Your task to perform on an android device: Search for Mexican restaurants on Maps Image 0: 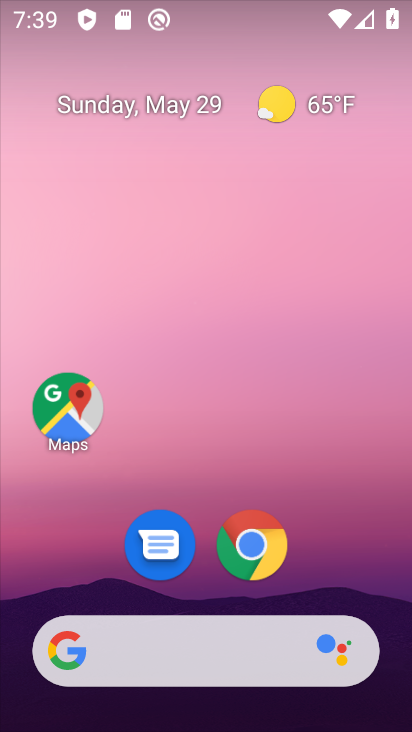
Step 0: click (64, 407)
Your task to perform on an android device: Search for Mexican restaurants on Maps Image 1: 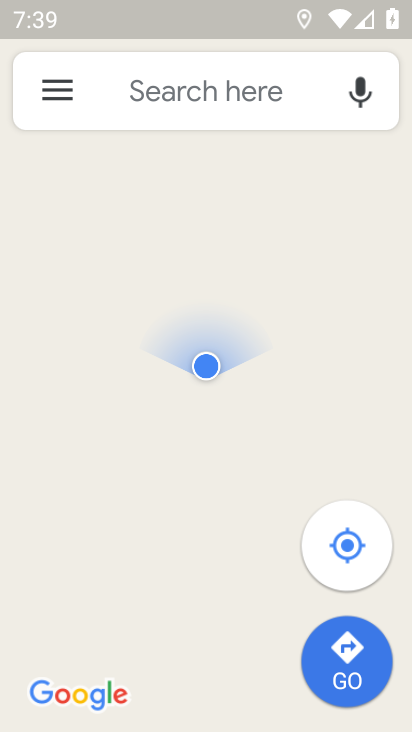
Step 1: click (253, 110)
Your task to perform on an android device: Search for Mexican restaurants on Maps Image 2: 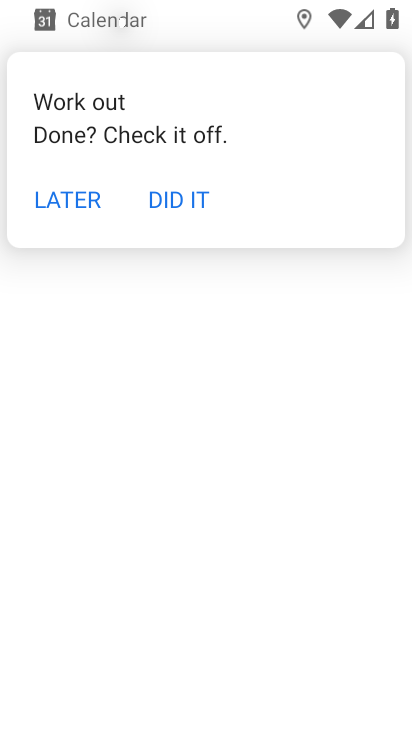
Step 2: type "Mexican restaurants "
Your task to perform on an android device: Search for Mexican restaurants on Maps Image 3: 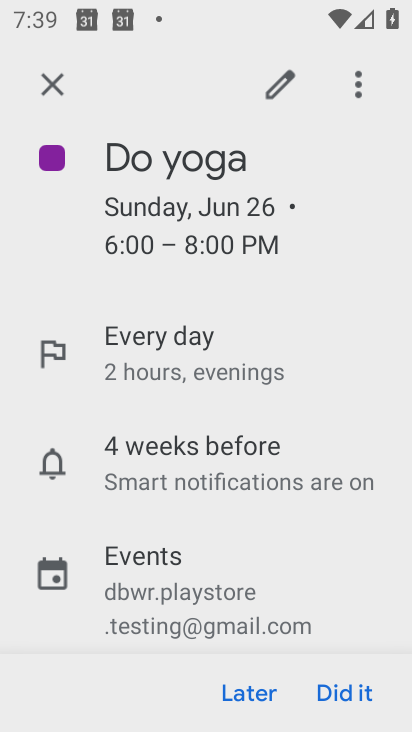
Step 3: click (63, 81)
Your task to perform on an android device: Search for Mexican restaurants on Maps Image 4: 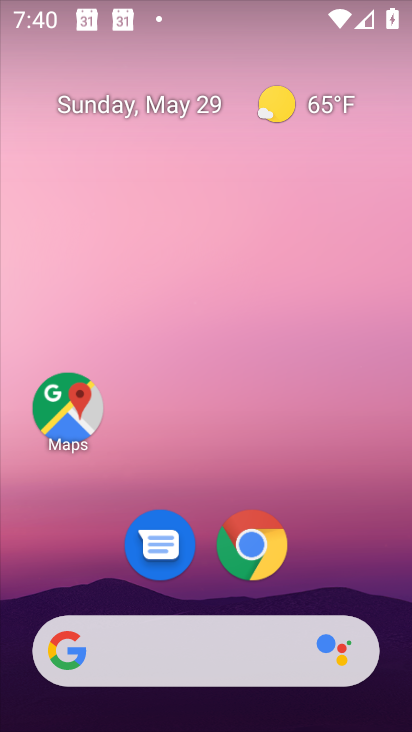
Step 4: click (71, 406)
Your task to perform on an android device: Search for Mexican restaurants on Maps Image 5: 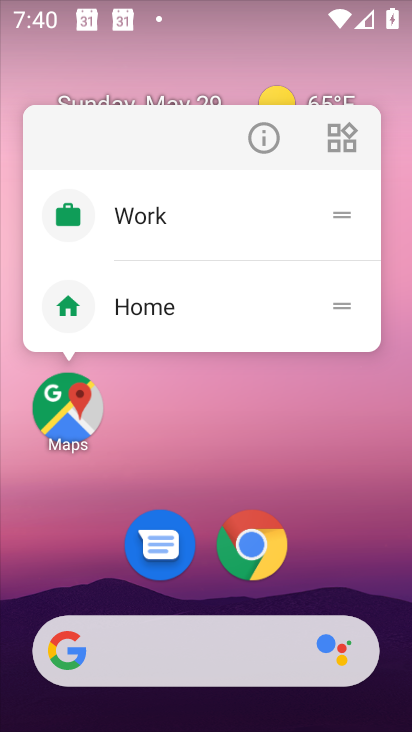
Step 5: click (56, 408)
Your task to perform on an android device: Search for Mexican restaurants on Maps Image 6: 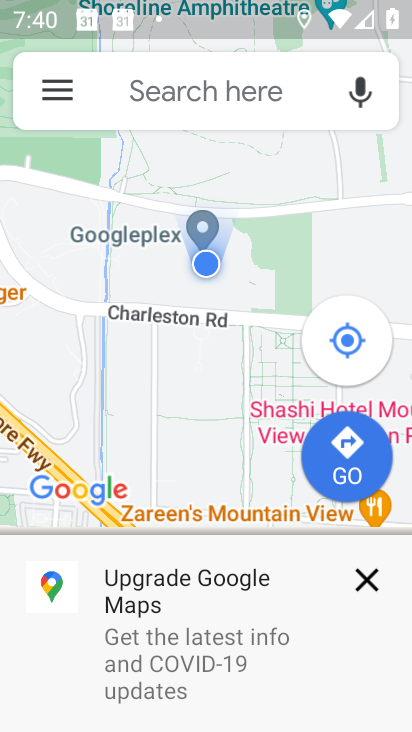
Step 6: click (113, 97)
Your task to perform on an android device: Search for Mexican restaurants on Maps Image 7: 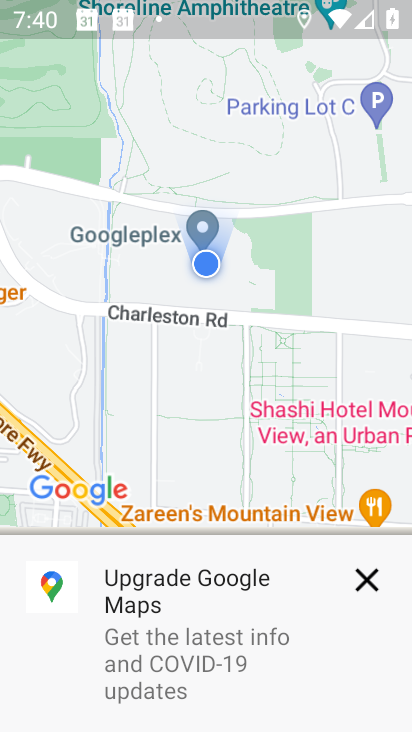
Step 7: type "Mexican restaurants "
Your task to perform on an android device: Search for Mexican restaurants on Maps Image 8: 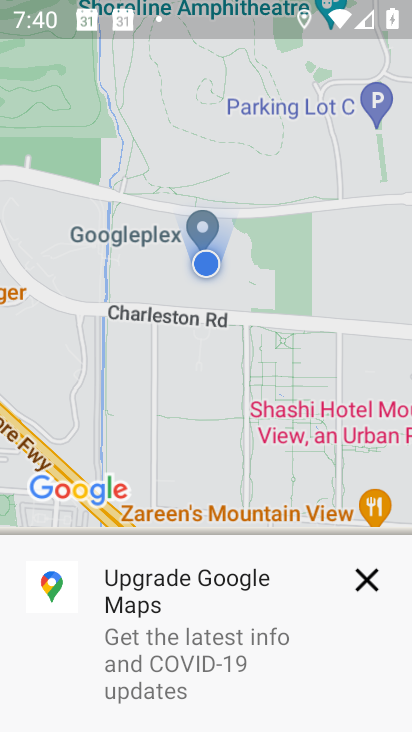
Step 8: click (356, 575)
Your task to perform on an android device: Search for Mexican restaurants on Maps Image 9: 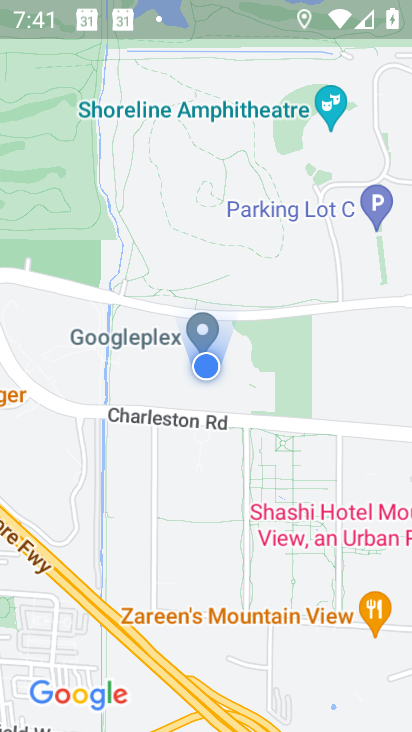
Step 9: task complete